Your task to perform on an android device: turn on notifications settings in the gmail app Image 0: 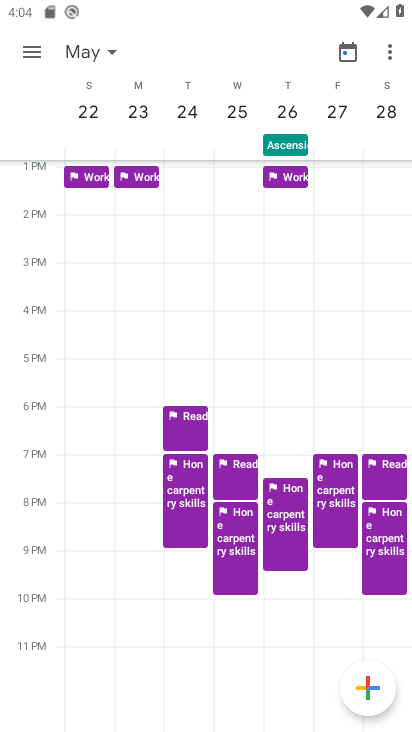
Step 0: press home button
Your task to perform on an android device: turn on notifications settings in the gmail app Image 1: 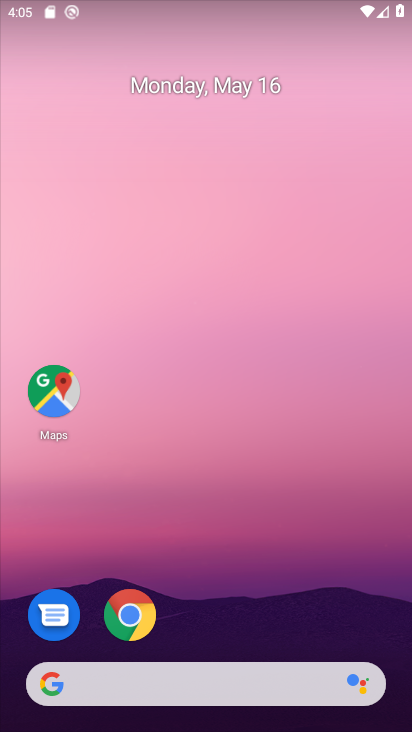
Step 1: drag from (225, 639) to (353, 110)
Your task to perform on an android device: turn on notifications settings in the gmail app Image 2: 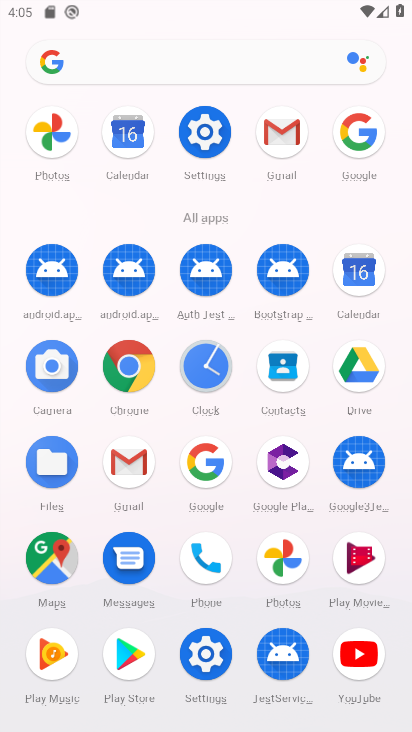
Step 2: click (288, 140)
Your task to perform on an android device: turn on notifications settings in the gmail app Image 3: 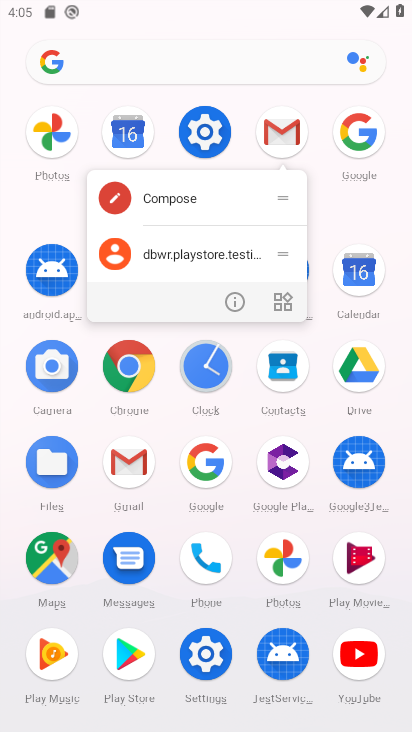
Step 3: click (275, 140)
Your task to perform on an android device: turn on notifications settings in the gmail app Image 4: 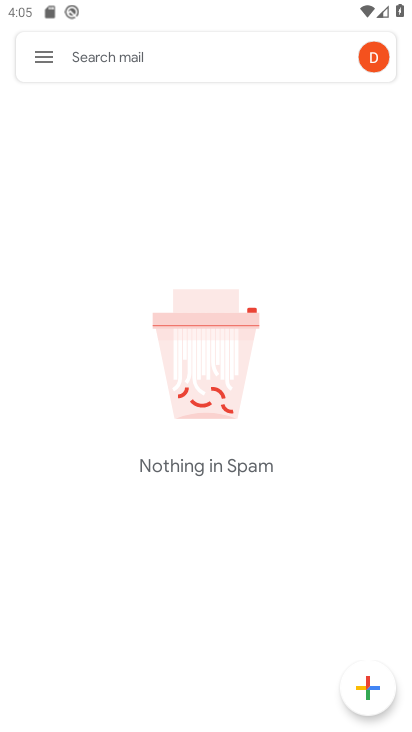
Step 4: click (47, 55)
Your task to perform on an android device: turn on notifications settings in the gmail app Image 5: 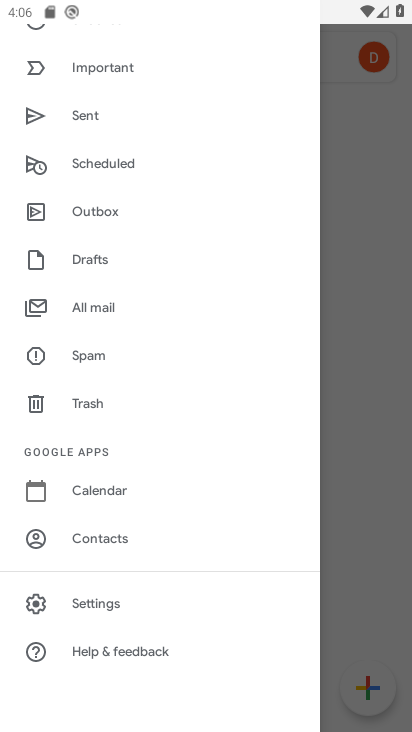
Step 5: drag from (161, 224) to (54, 471)
Your task to perform on an android device: turn on notifications settings in the gmail app Image 6: 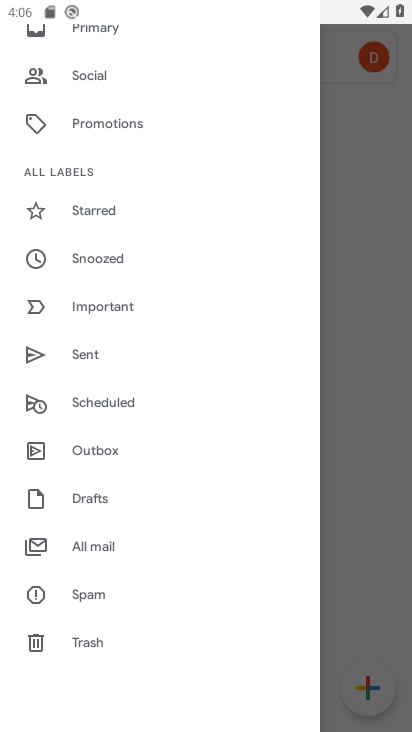
Step 6: drag from (141, 234) to (129, 572)
Your task to perform on an android device: turn on notifications settings in the gmail app Image 7: 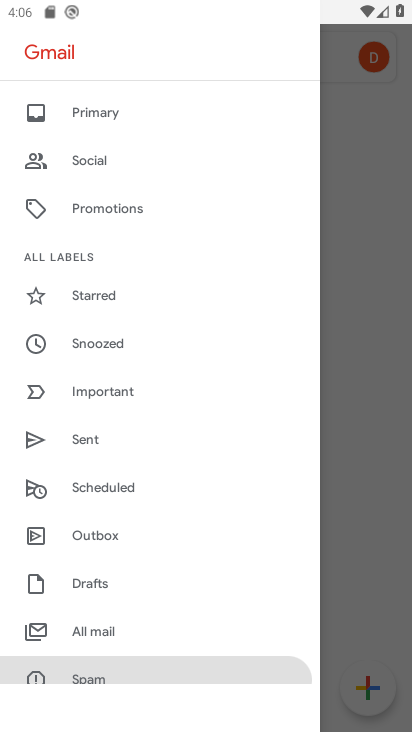
Step 7: drag from (154, 550) to (148, 215)
Your task to perform on an android device: turn on notifications settings in the gmail app Image 8: 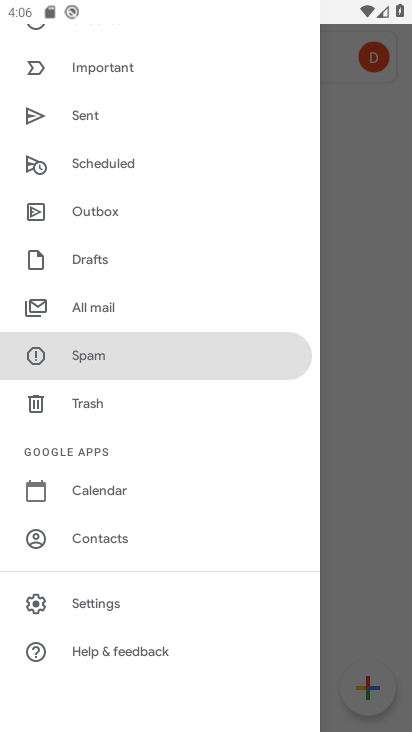
Step 8: click (95, 604)
Your task to perform on an android device: turn on notifications settings in the gmail app Image 9: 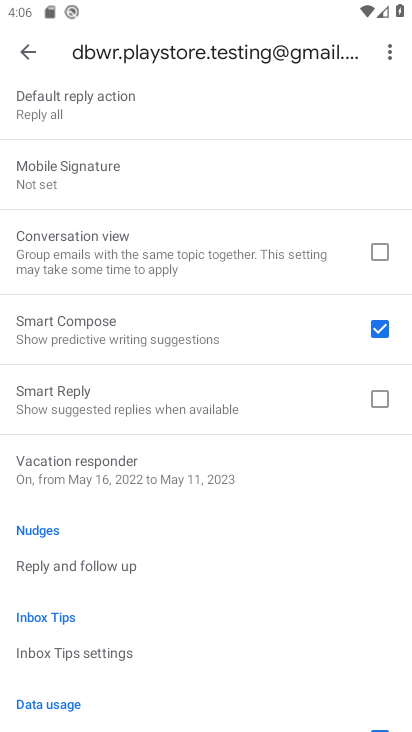
Step 9: drag from (174, 201) to (219, 730)
Your task to perform on an android device: turn on notifications settings in the gmail app Image 10: 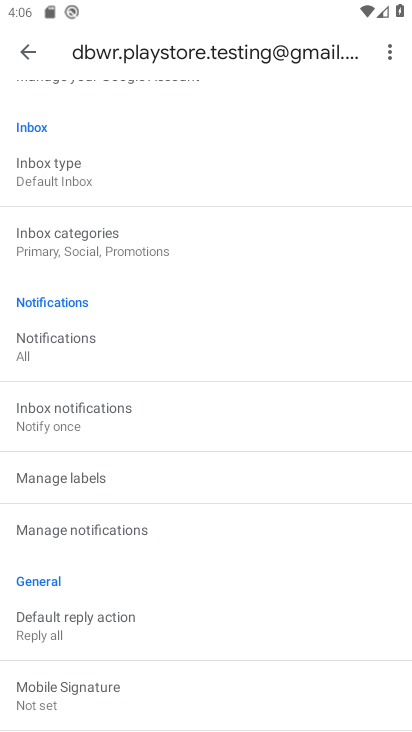
Step 10: drag from (183, 214) to (111, 624)
Your task to perform on an android device: turn on notifications settings in the gmail app Image 11: 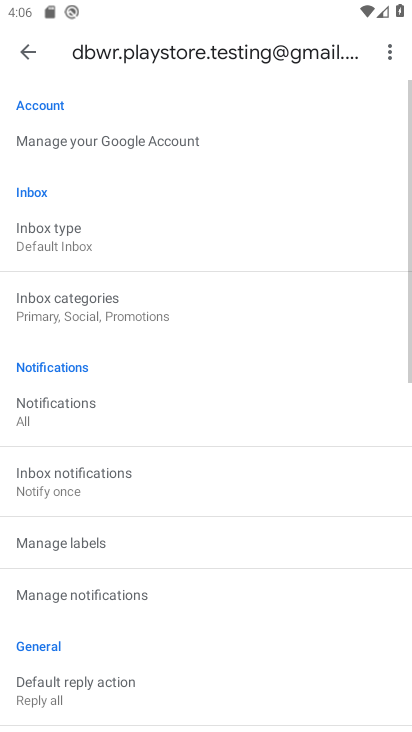
Step 11: drag from (137, 265) to (142, 691)
Your task to perform on an android device: turn on notifications settings in the gmail app Image 12: 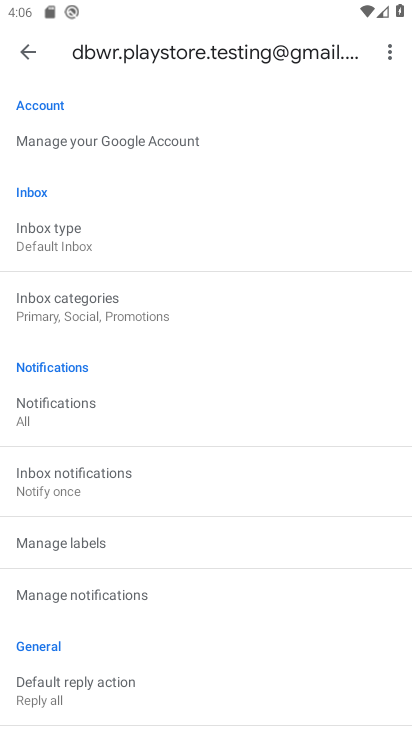
Step 12: click (84, 416)
Your task to perform on an android device: turn on notifications settings in the gmail app Image 13: 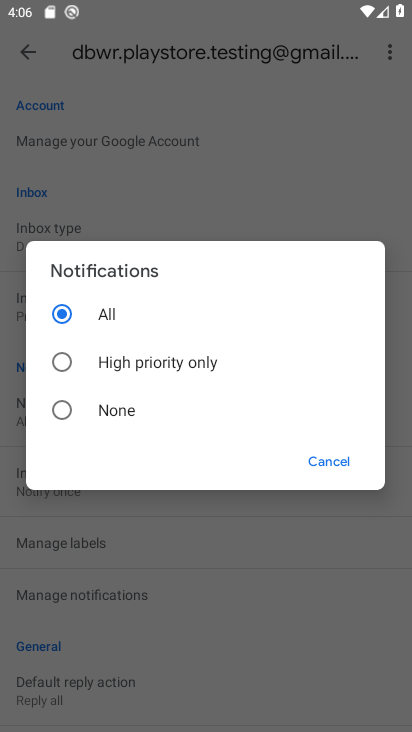
Step 13: task complete